Your task to perform on an android device: Add "logitech g pro" to the cart on bestbuy.com Image 0: 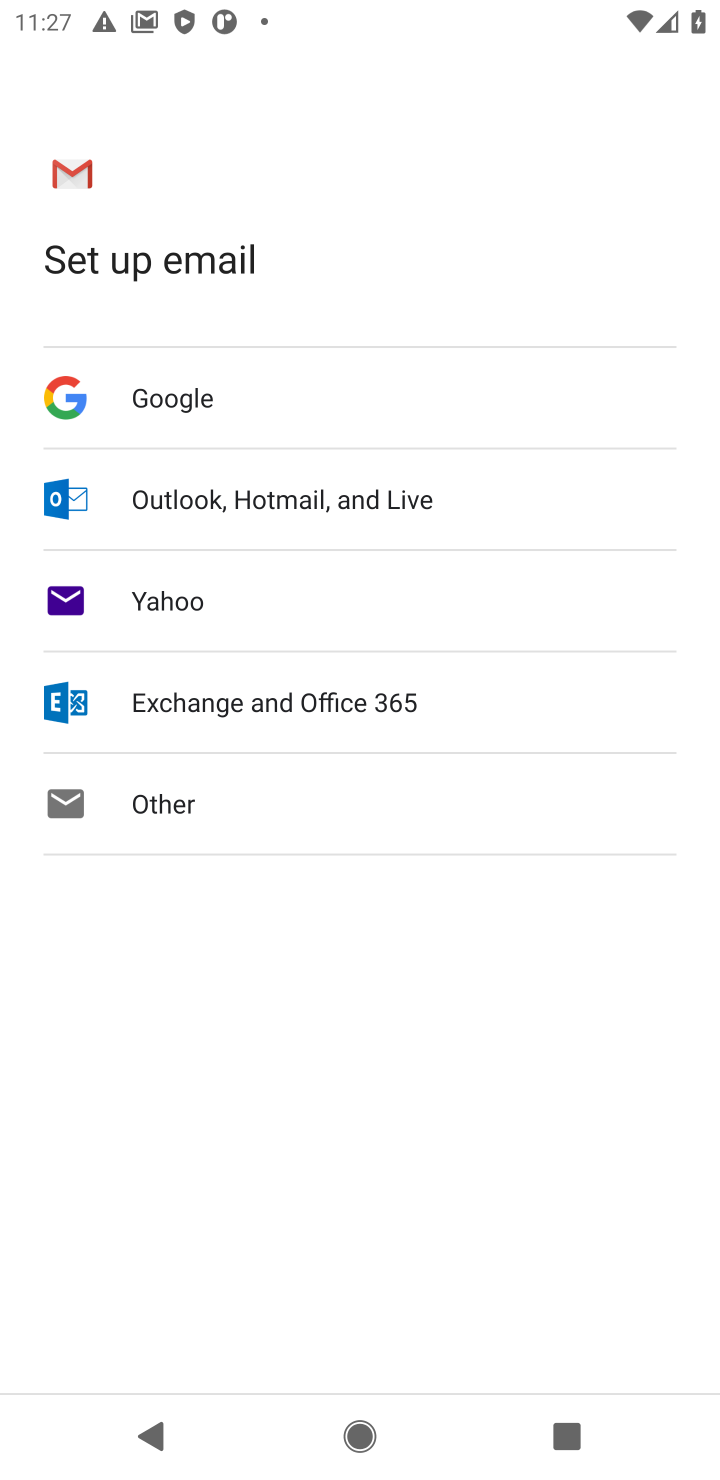
Step 0: press home button
Your task to perform on an android device: Add "logitech g pro" to the cart on bestbuy.com Image 1: 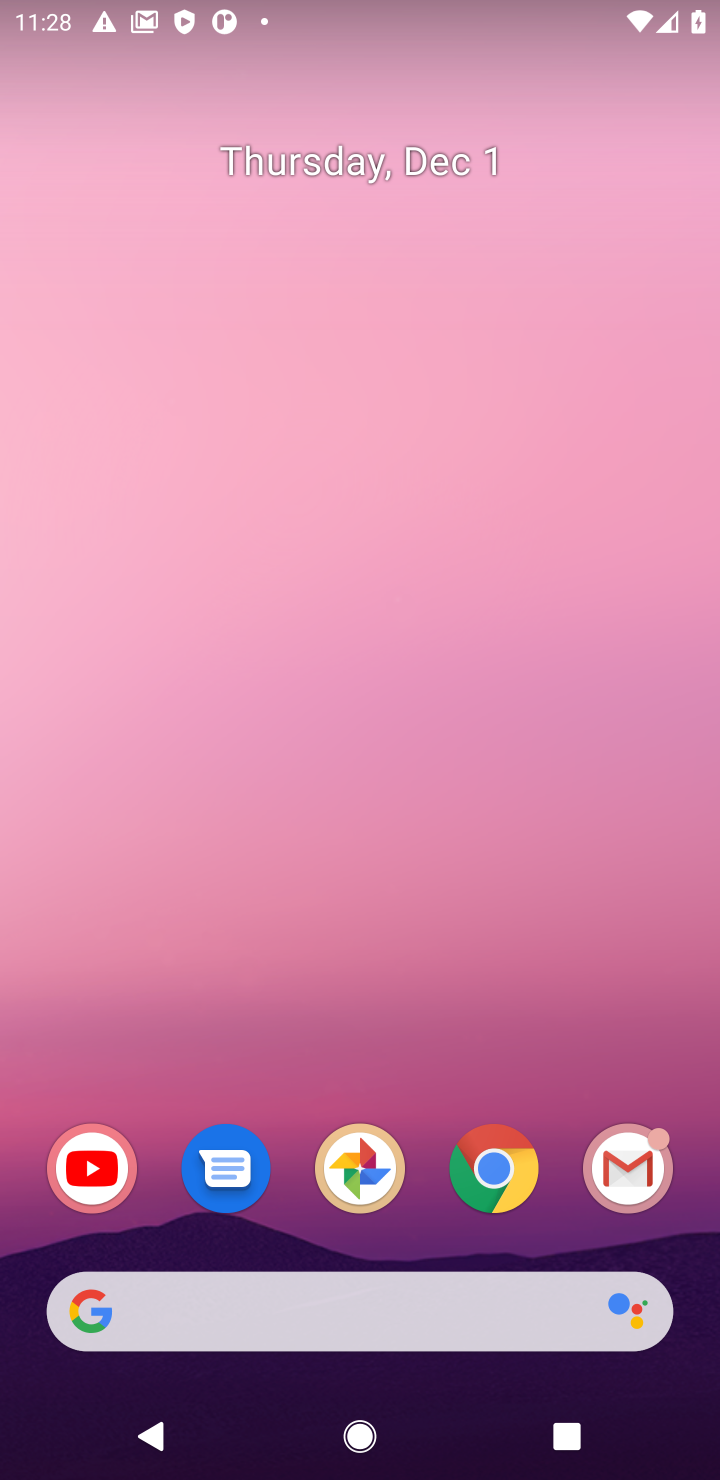
Step 1: click (503, 1166)
Your task to perform on an android device: Add "logitech g pro" to the cart on bestbuy.com Image 2: 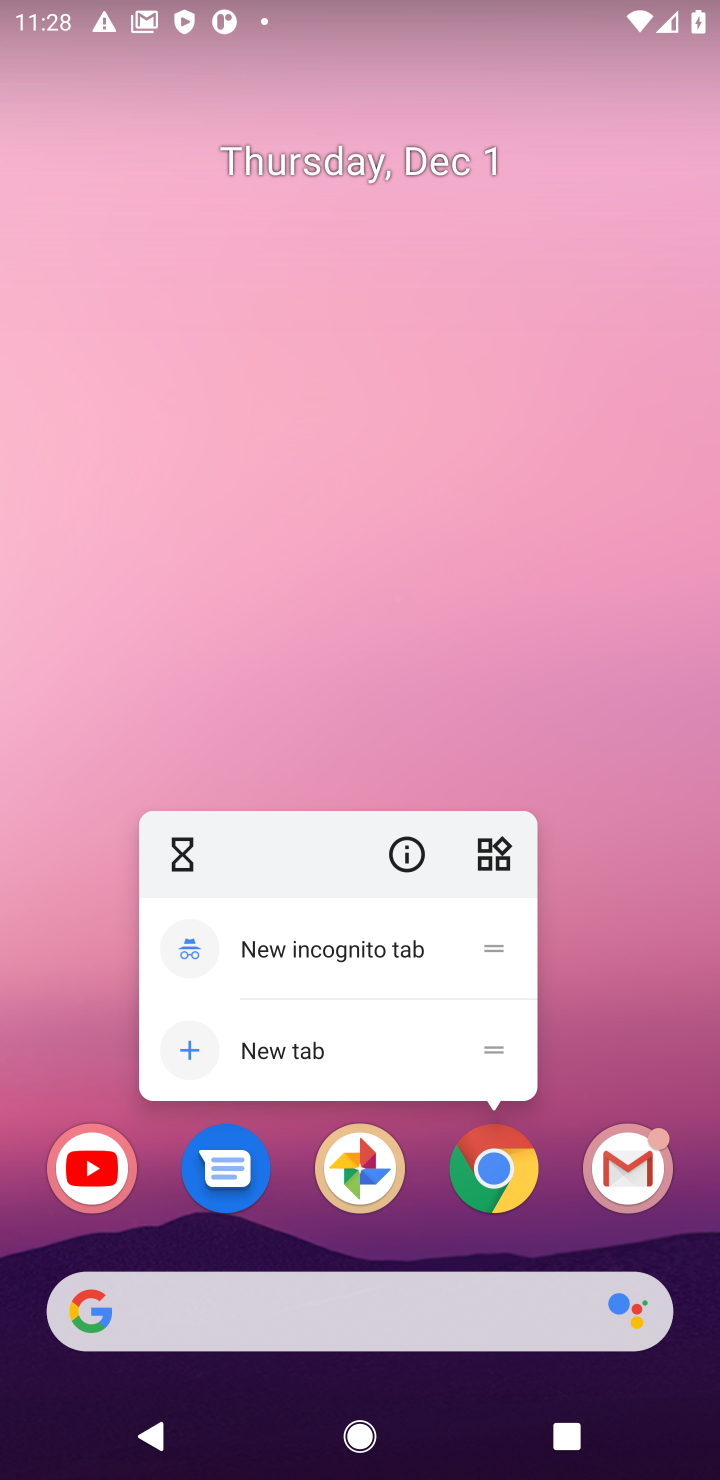
Step 2: click (492, 1176)
Your task to perform on an android device: Add "logitech g pro" to the cart on bestbuy.com Image 3: 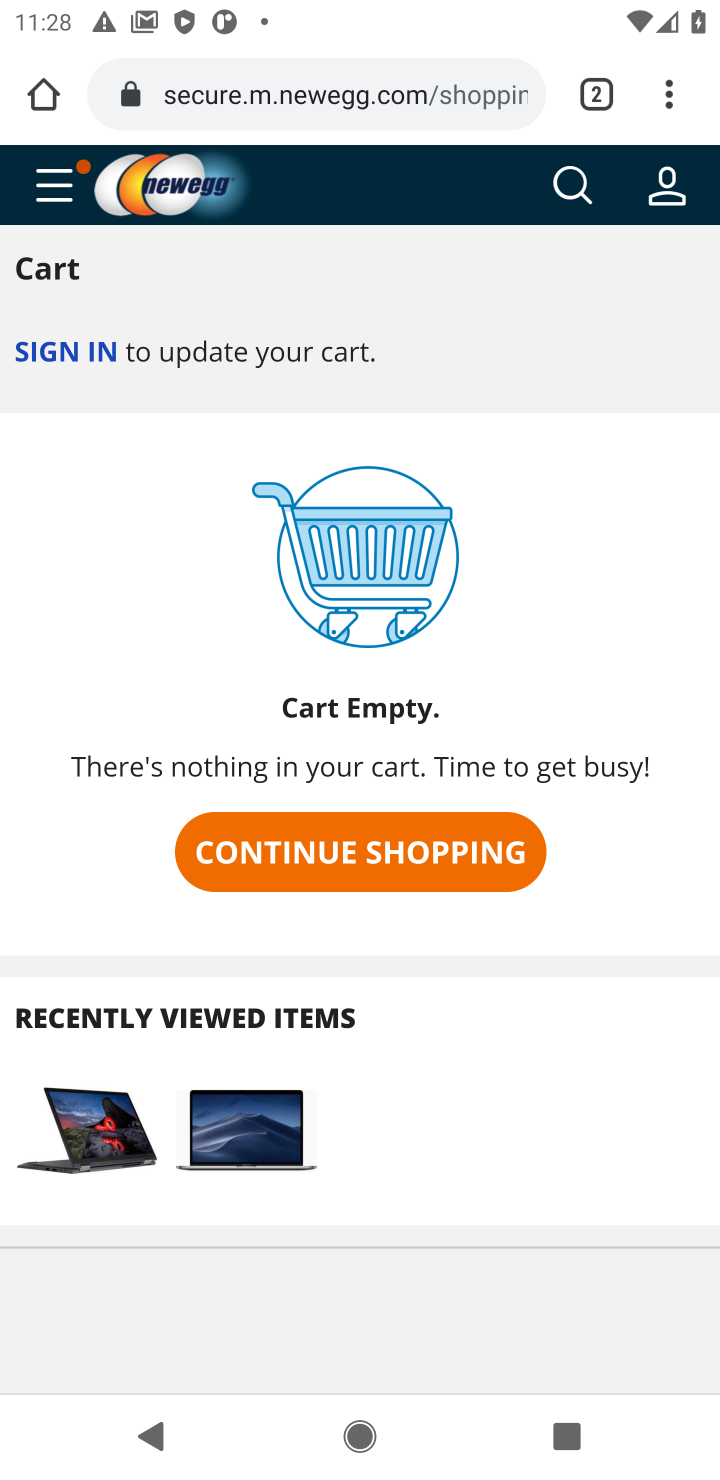
Step 3: click (391, 106)
Your task to perform on an android device: Add "logitech g pro" to the cart on bestbuy.com Image 4: 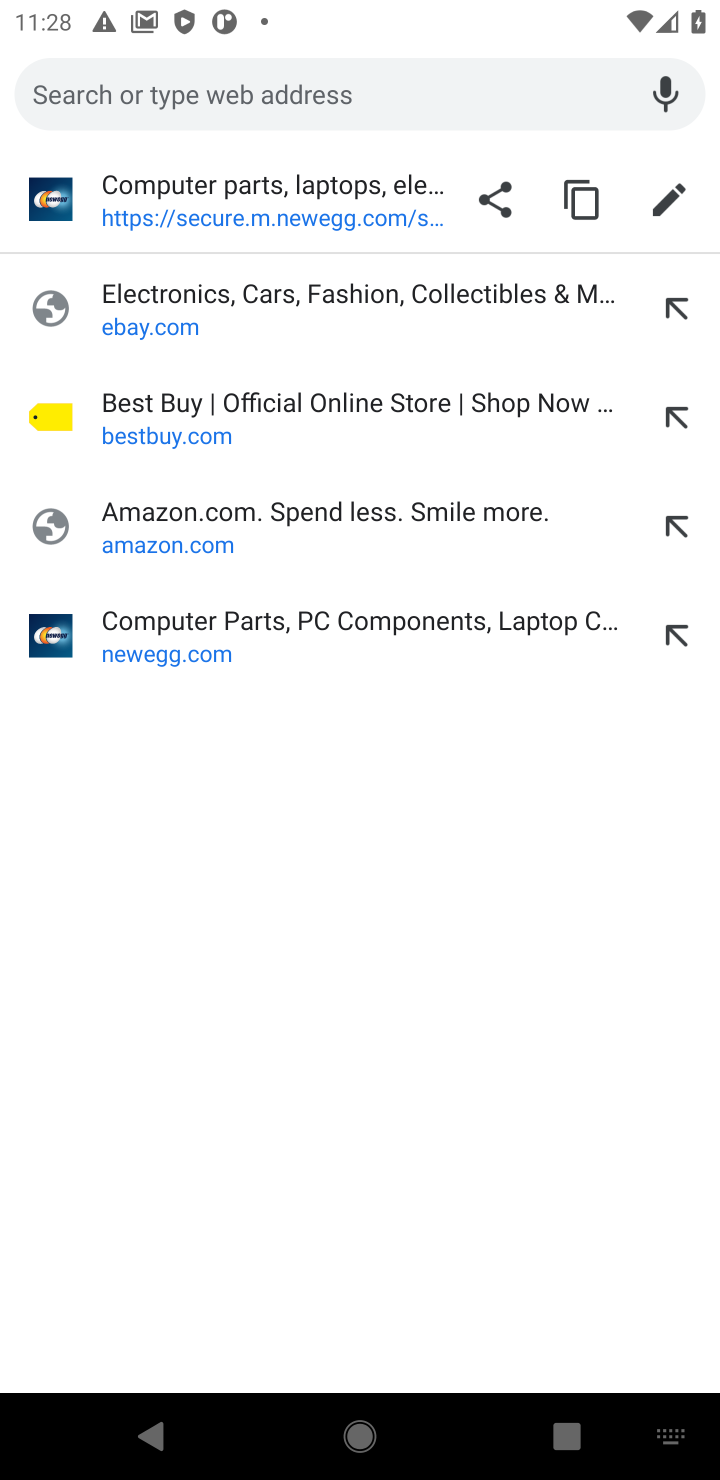
Step 4: click (159, 427)
Your task to perform on an android device: Add "logitech g pro" to the cart on bestbuy.com Image 5: 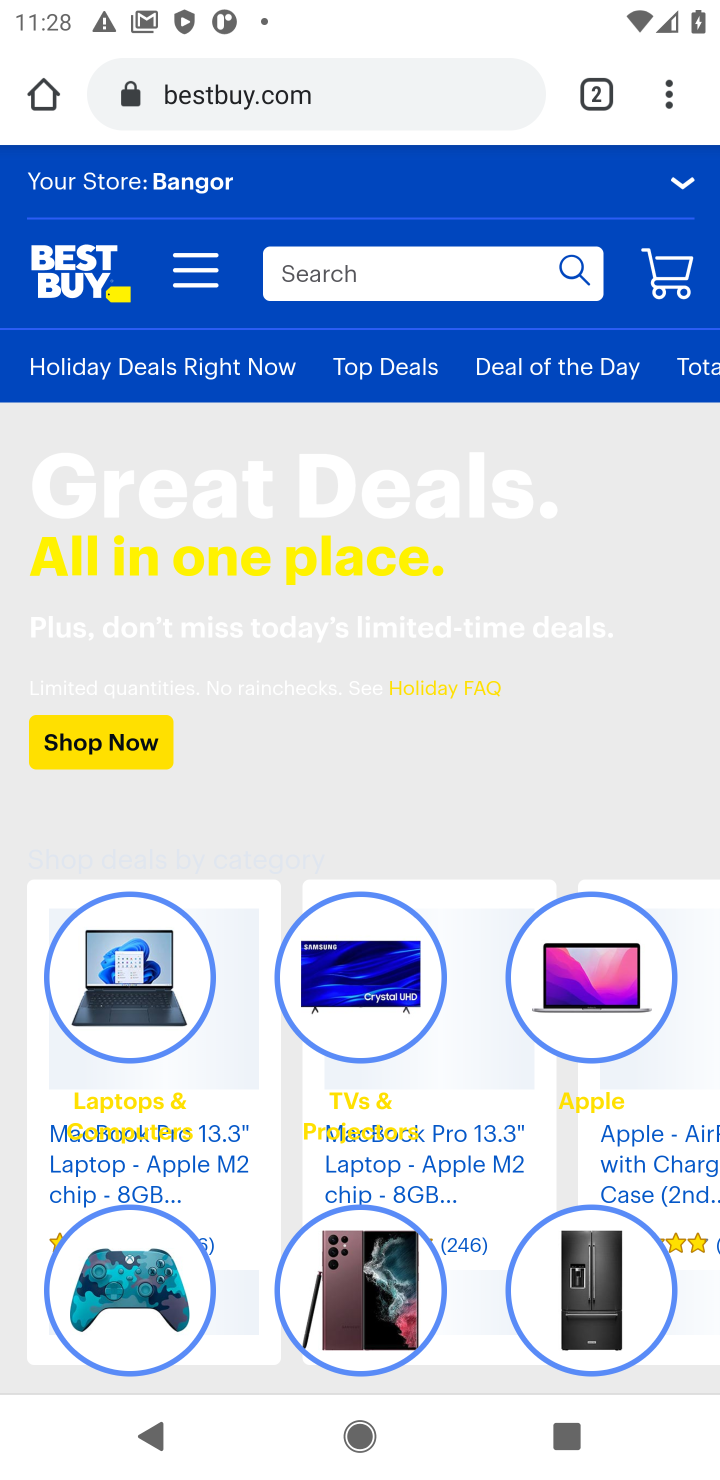
Step 5: click (407, 284)
Your task to perform on an android device: Add "logitech g pro" to the cart on bestbuy.com Image 6: 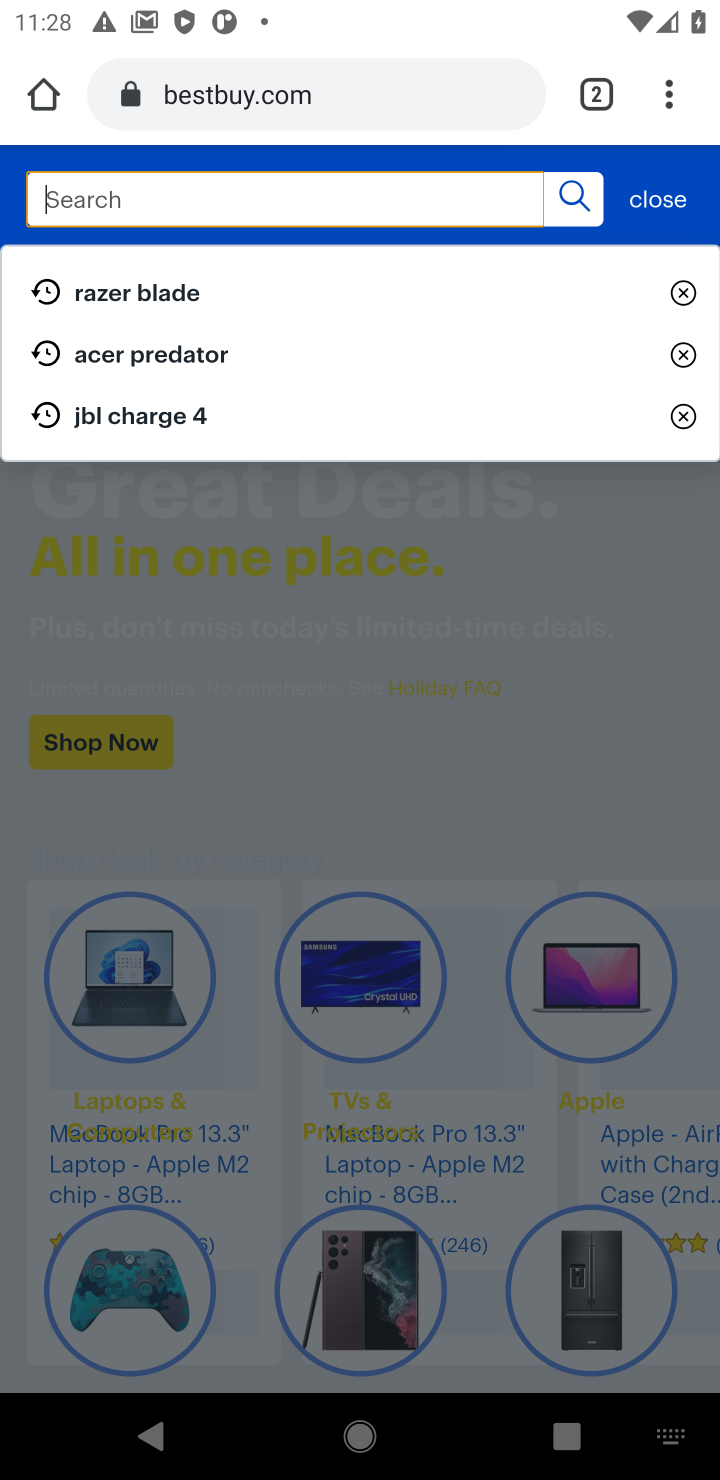
Step 6: type "logitech g pro"
Your task to perform on an android device: Add "logitech g pro" to the cart on bestbuy.com Image 7: 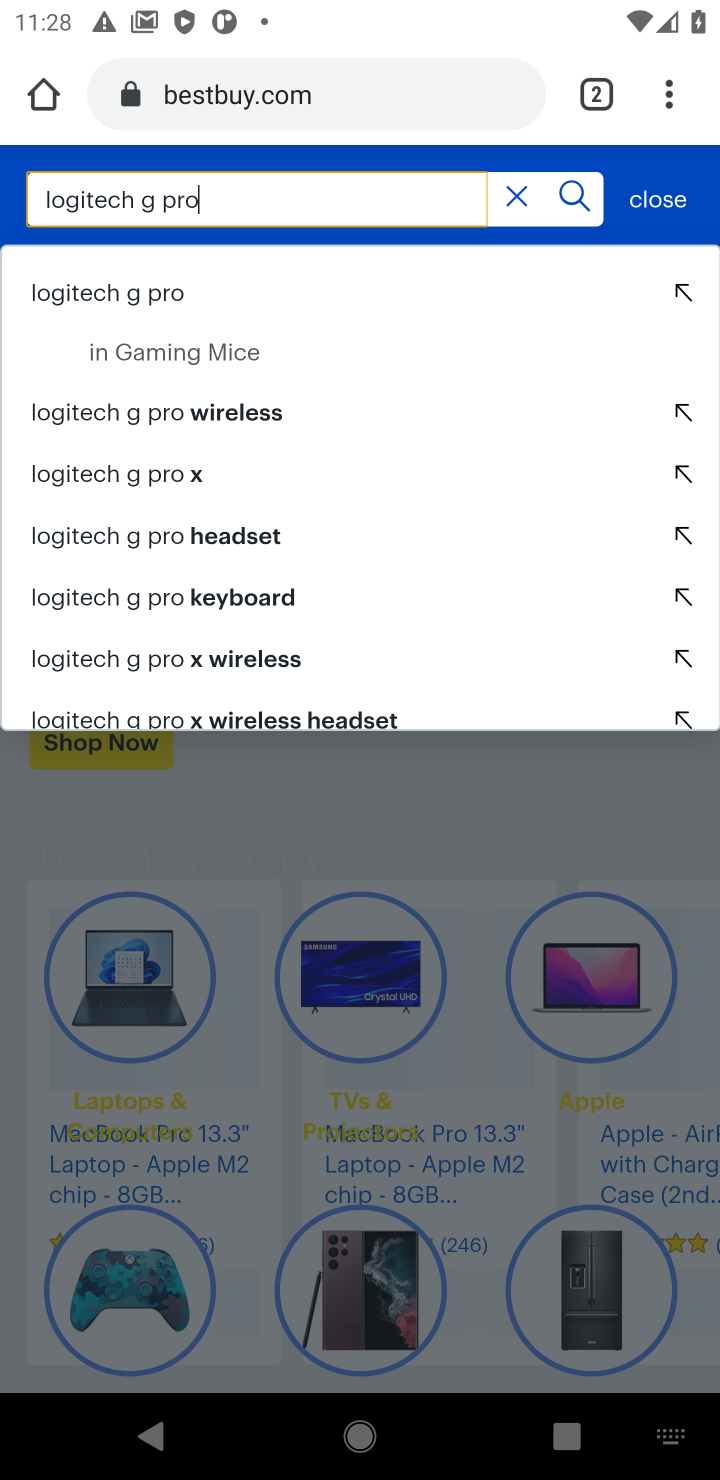
Step 7: click (105, 301)
Your task to perform on an android device: Add "logitech g pro" to the cart on bestbuy.com Image 8: 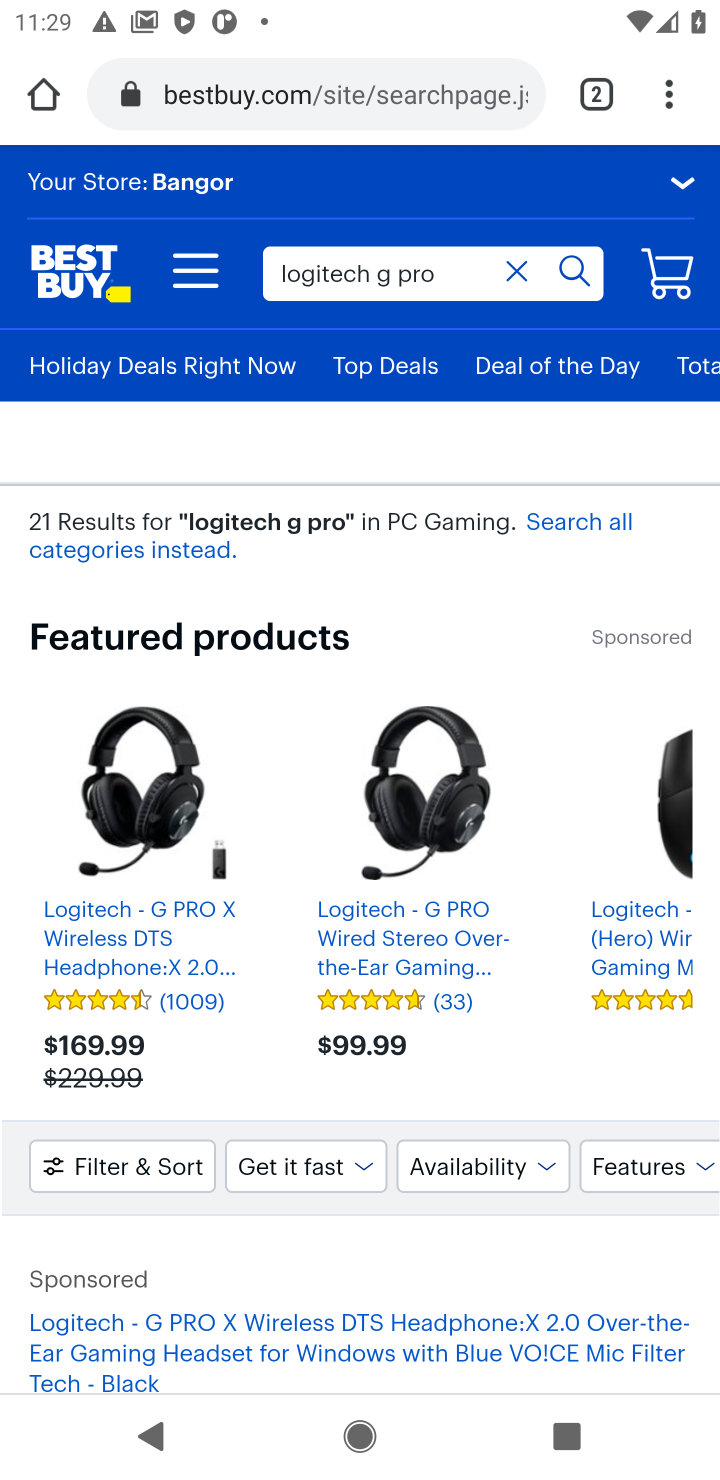
Step 8: drag from (286, 1024) to (262, 400)
Your task to perform on an android device: Add "logitech g pro" to the cart on bestbuy.com Image 9: 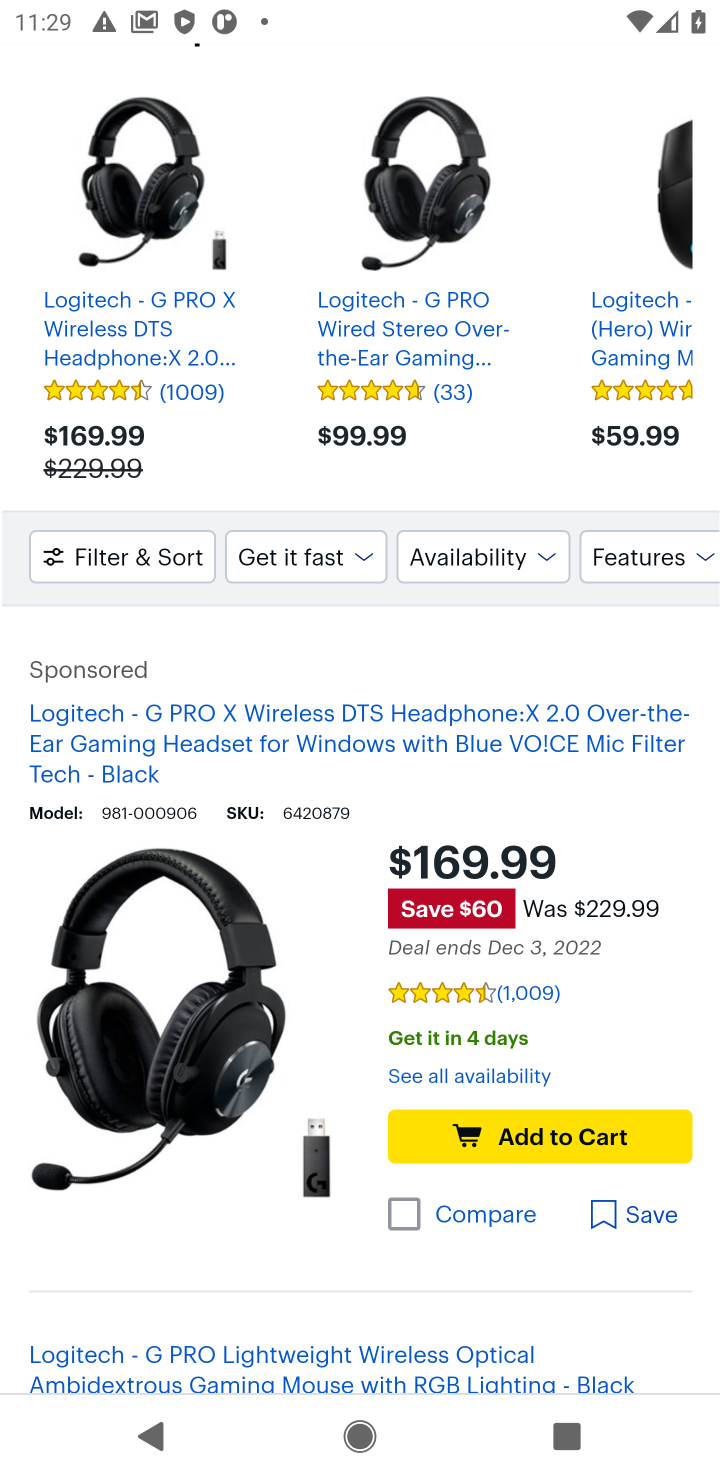
Step 9: click (511, 1134)
Your task to perform on an android device: Add "logitech g pro" to the cart on bestbuy.com Image 10: 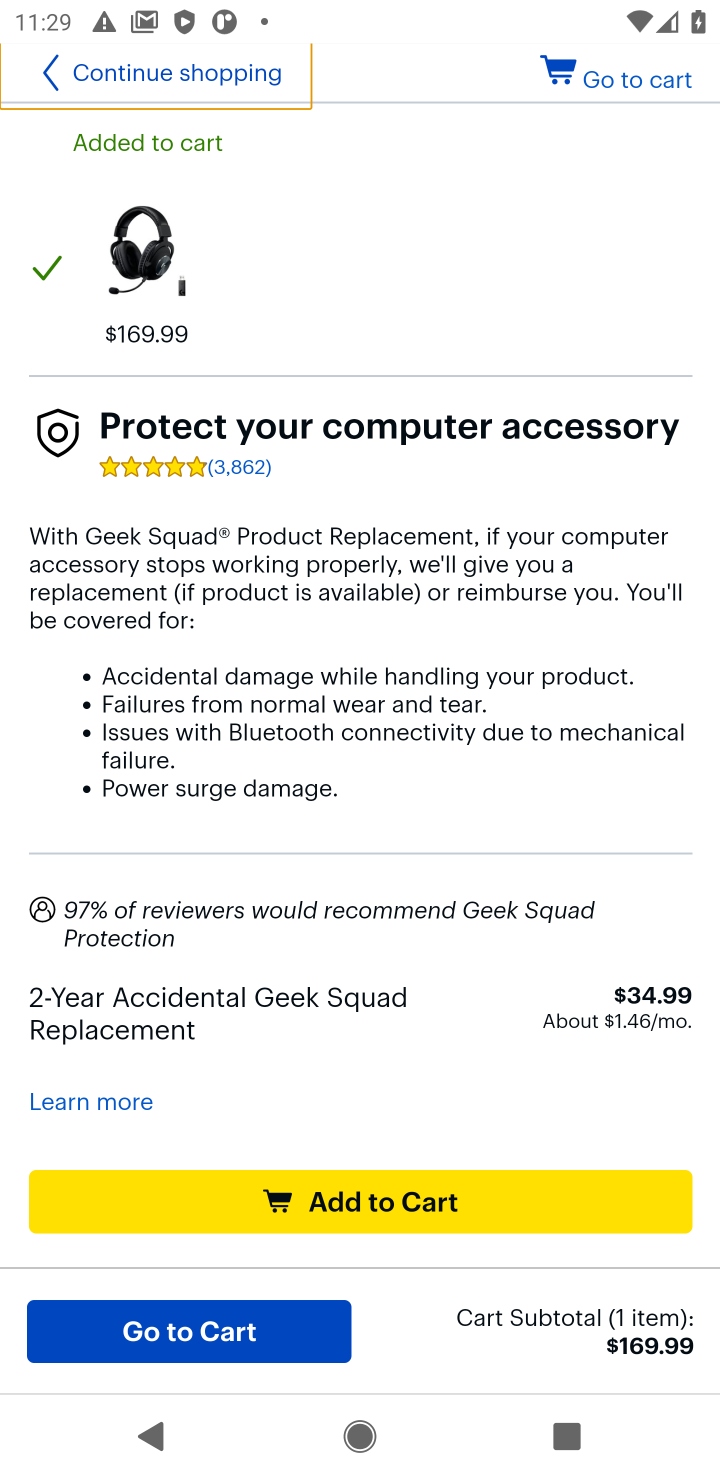
Step 10: task complete